Your task to perform on an android device: Search for pizza restaurants on Maps Image 0: 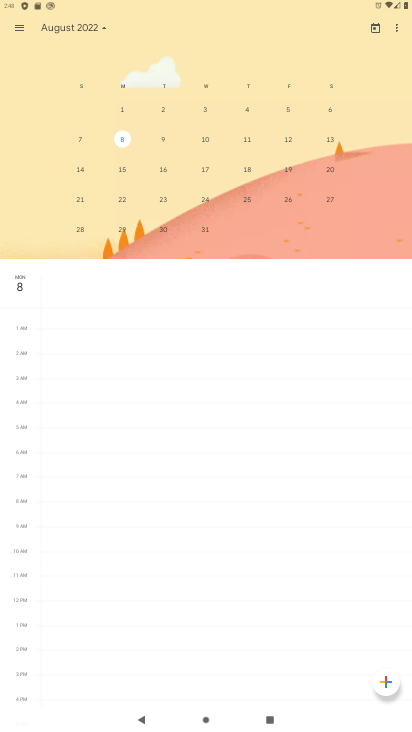
Step 0: press home button
Your task to perform on an android device: Search for pizza restaurants on Maps Image 1: 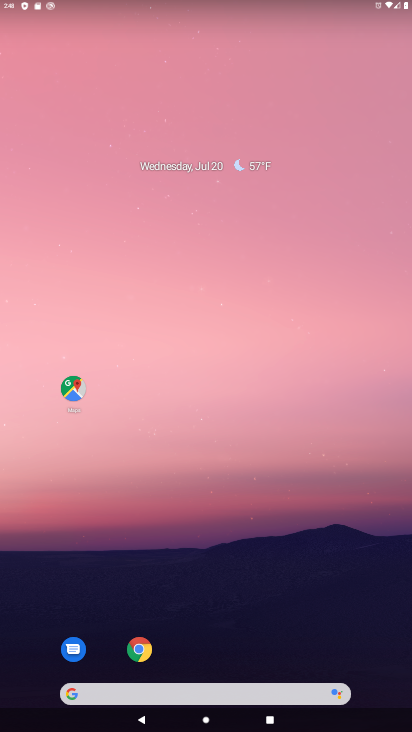
Step 1: click (68, 379)
Your task to perform on an android device: Search for pizza restaurants on Maps Image 2: 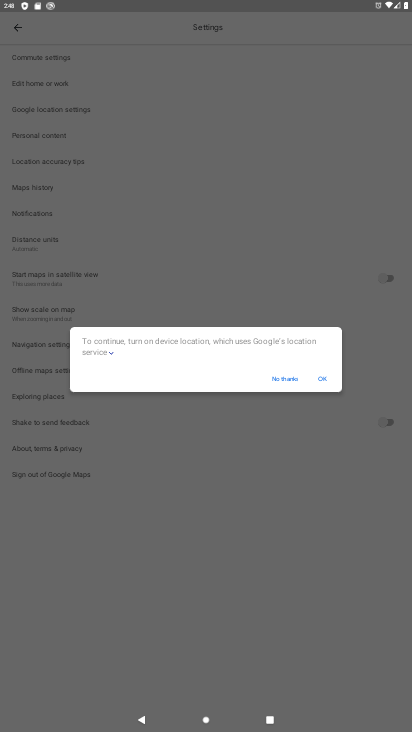
Step 2: click (21, 33)
Your task to perform on an android device: Search for pizza restaurants on Maps Image 3: 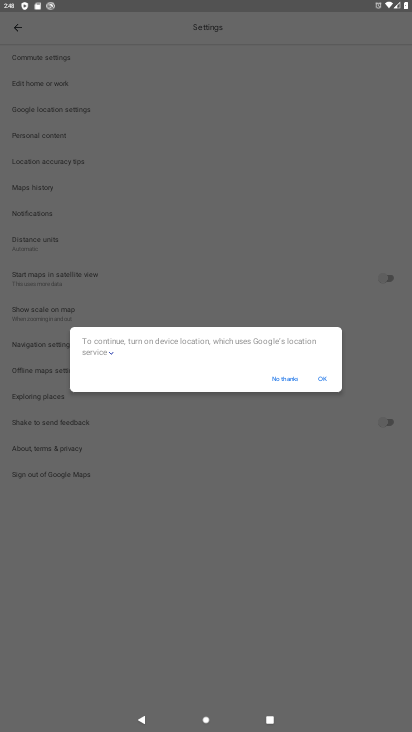
Step 3: click (326, 377)
Your task to perform on an android device: Search for pizza restaurants on Maps Image 4: 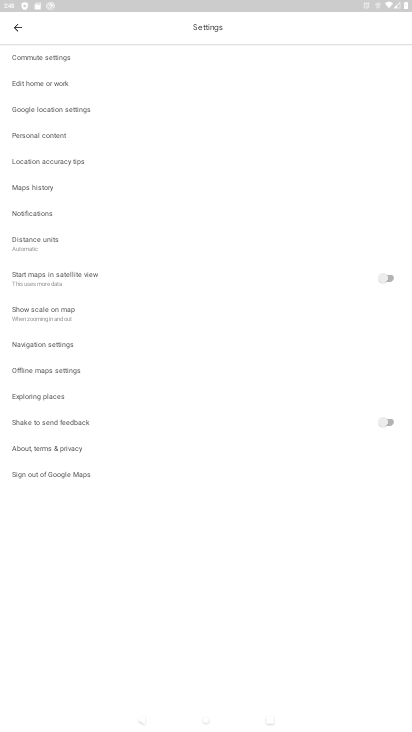
Step 4: click (25, 32)
Your task to perform on an android device: Search for pizza restaurants on Maps Image 5: 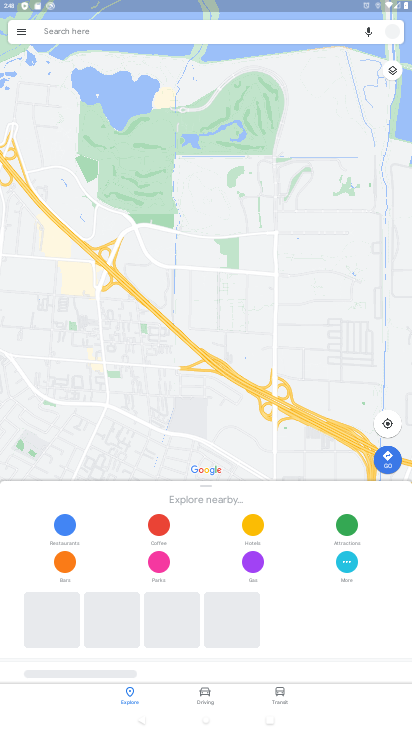
Step 5: click (99, 31)
Your task to perform on an android device: Search for pizza restaurants on Maps Image 6: 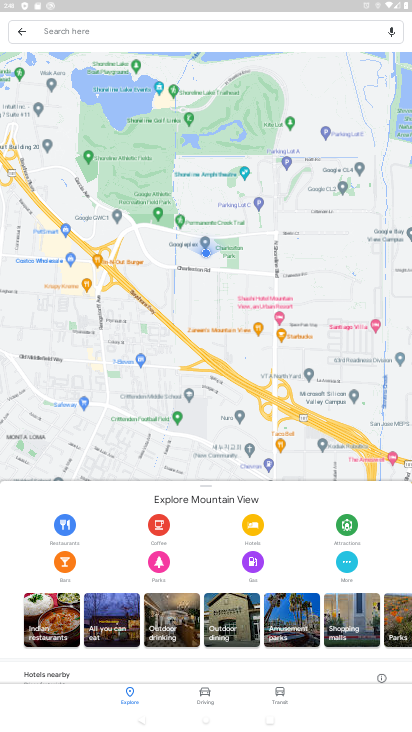
Step 6: click (99, 31)
Your task to perform on an android device: Search for pizza restaurants on Maps Image 7: 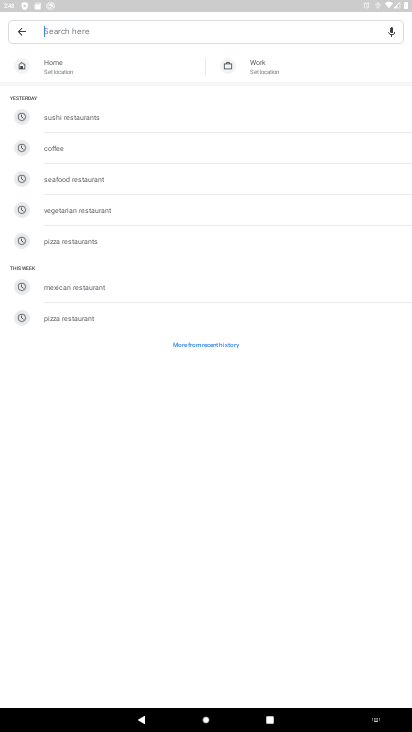
Step 7: click (93, 236)
Your task to perform on an android device: Search for pizza restaurants on Maps Image 8: 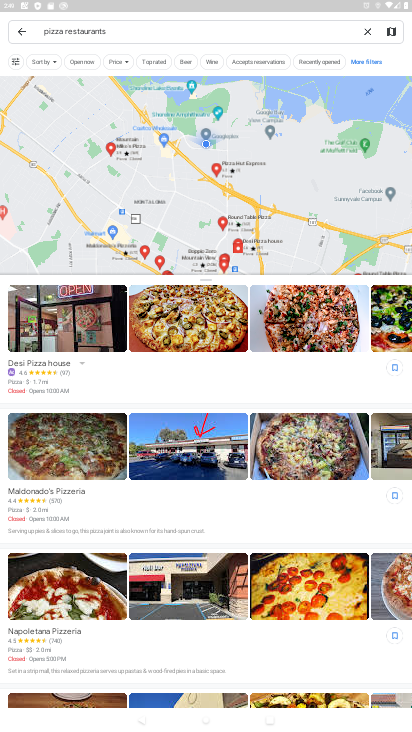
Step 8: task complete